Your task to perform on an android device: Go to location settings Image 0: 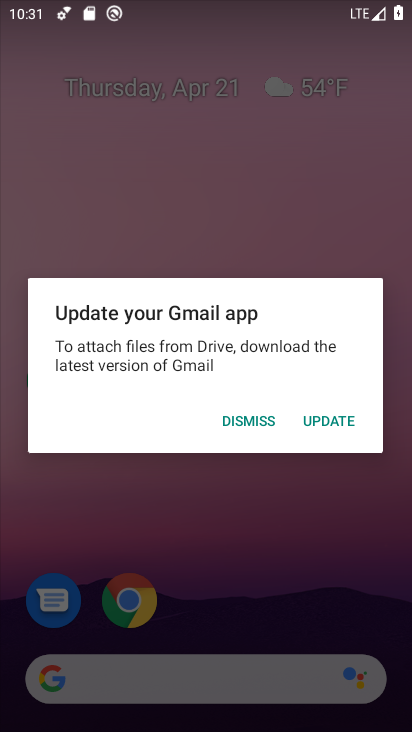
Step 0: press home button
Your task to perform on an android device: Go to location settings Image 1: 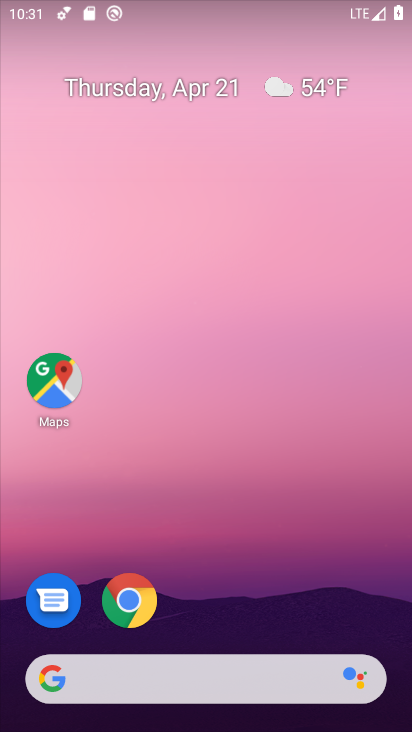
Step 1: drag from (236, 585) to (199, 39)
Your task to perform on an android device: Go to location settings Image 2: 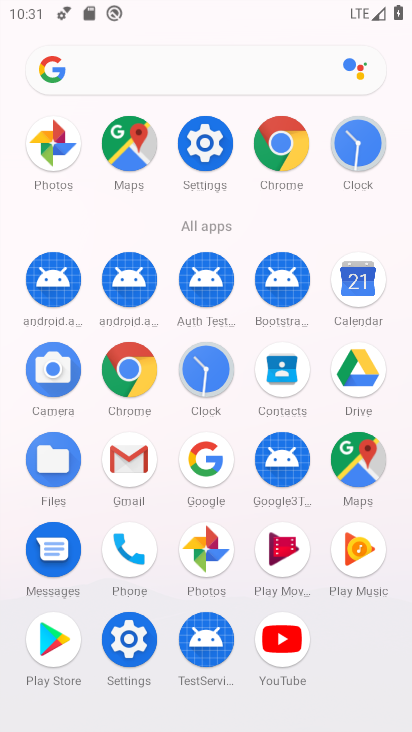
Step 2: click (204, 160)
Your task to perform on an android device: Go to location settings Image 3: 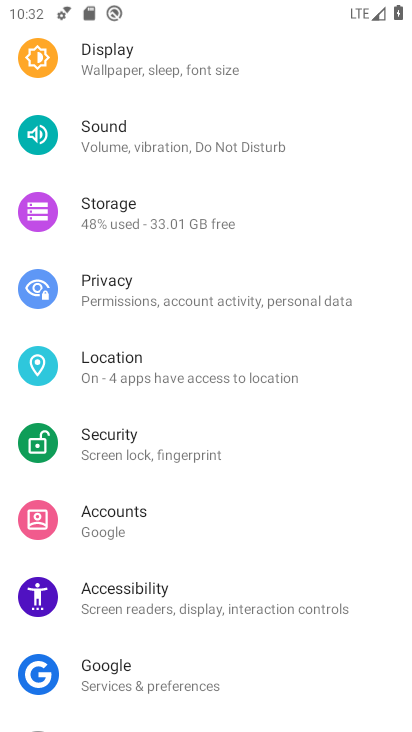
Step 3: click (153, 363)
Your task to perform on an android device: Go to location settings Image 4: 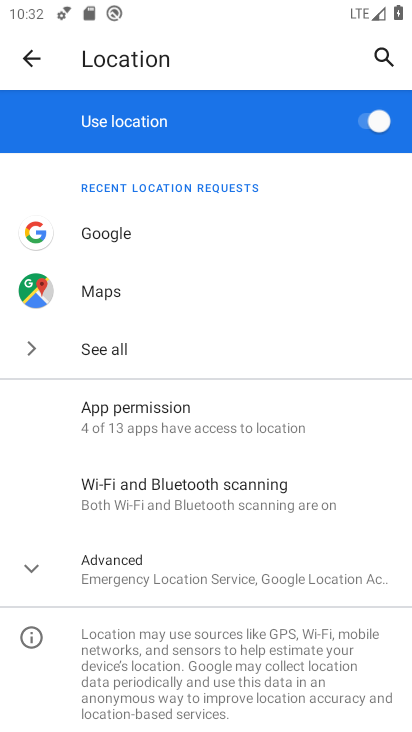
Step 4: task complete